Your task to perform on an android device: Open accessibility settings Image 0: 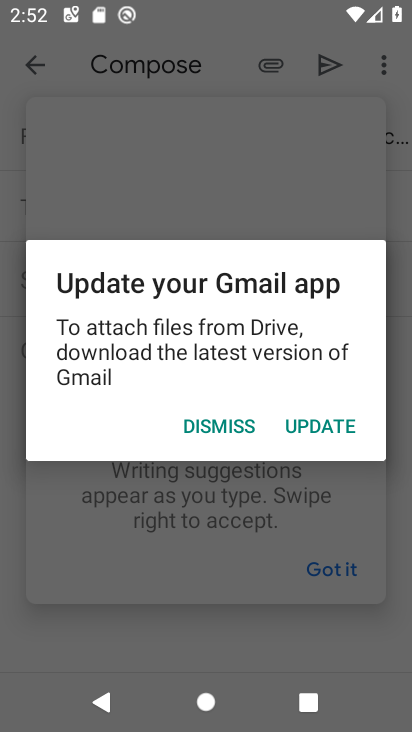
Step 0: press home button
Your task to perform on an android device: Open accessibility settings Image 1: 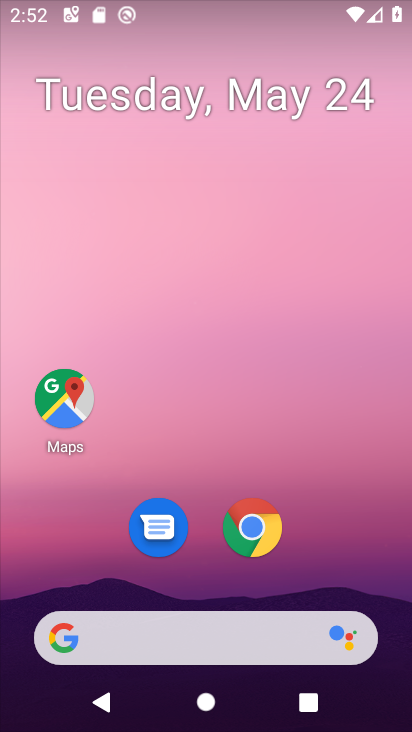
Step 1: drag from (357, 589) to (367, 35)
Your task to perform on an android device: Open accessibility settings Image 2: 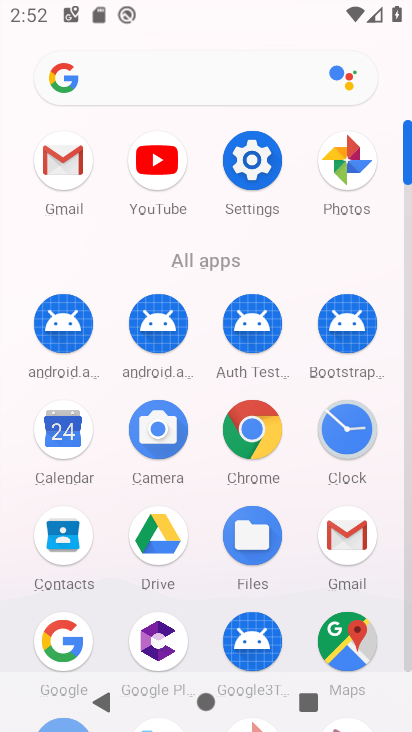
Step 2: click (256, 164)
Your task to perform on an android device: Open accessibility settings Image 3: 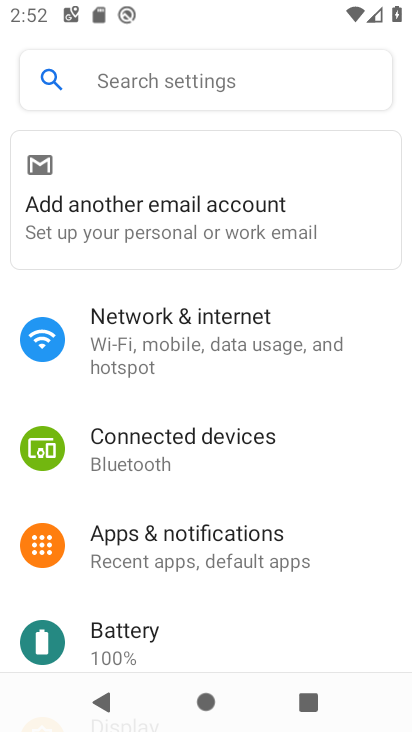
Step 3: drag from (295, 557) to (254, 84)
Your task to perform on an android device: Open accessibility settings Image 4: 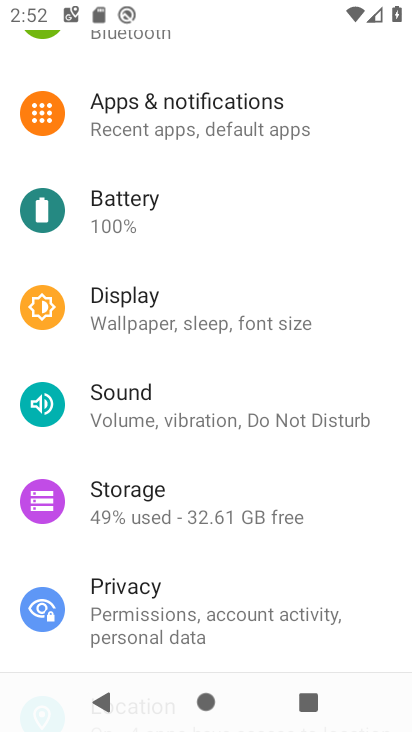
Step 4: drag from (286, 497) to (270, 82)
Your task to perform on an android device: Open accessibility settings Image 5: 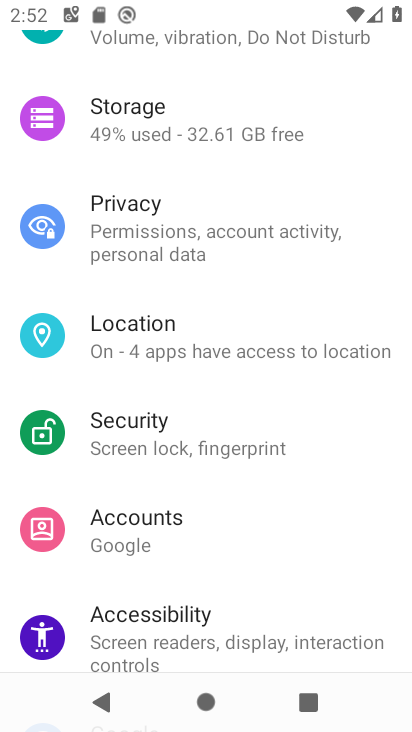
Step 5: click (138, 627)
Your task to perform on an android device: Open accessibility settings Image 6: 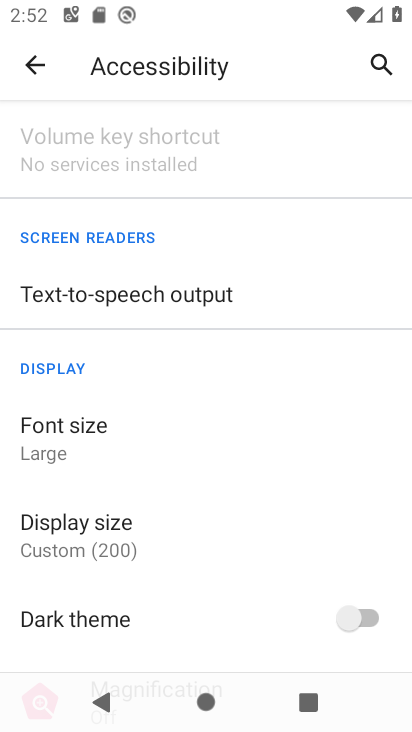
Step 6: task complete